Your task to perform on an android device: Go to Google Image 0: 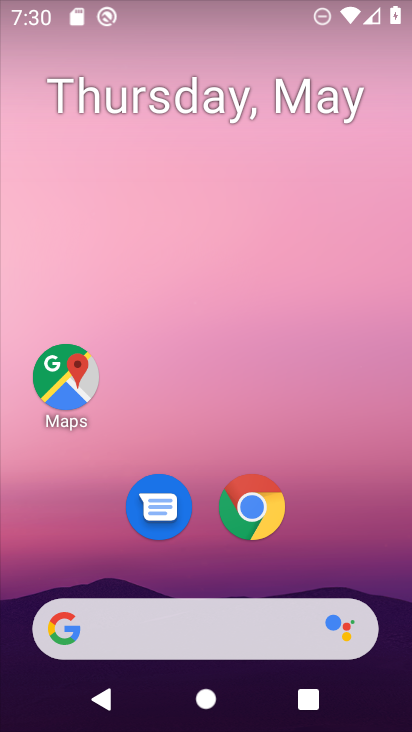
Step 0: drag from (353, 582) to (378, 44)
Your task to perform on an android device: Go to Google Image 1: 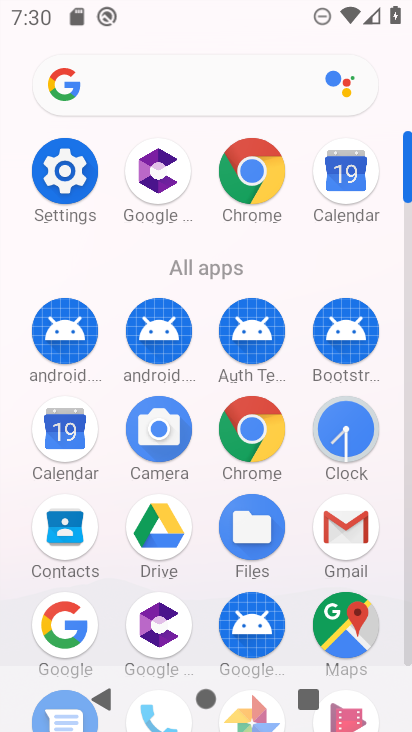
Step 1: click (48, 642)
Your task to perform on an android device: Go to Google Image 2: 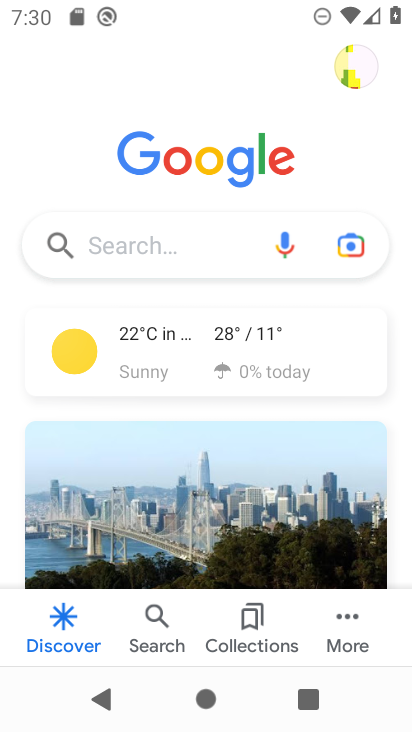
Step 2: task complete